Your task to perform on an android device: find which apps use the phone's location Image 0: 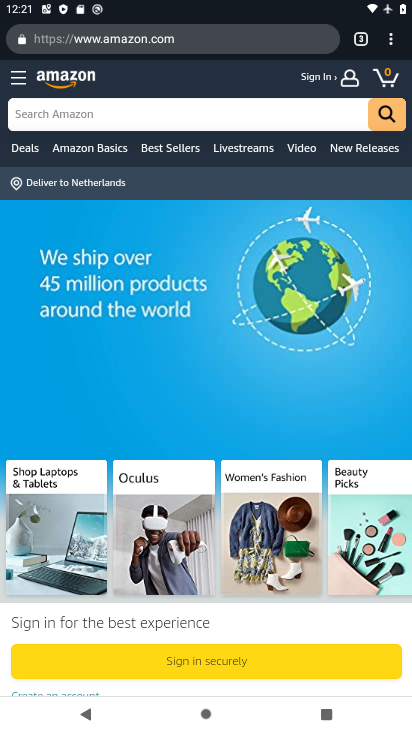
Step 0: press home button
Your task to perform on an android device: find which apps use the phone's location Image 1: 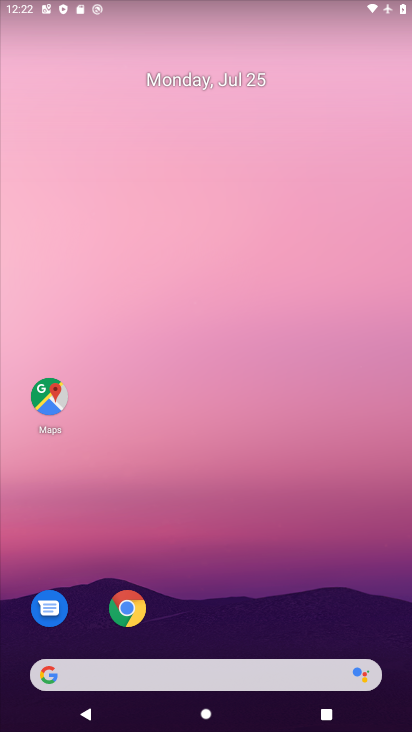
Step 1: drag from (304, 617) to (311, 263)
Your task to perform on an android device: find which apps use the phone's location Image 2: 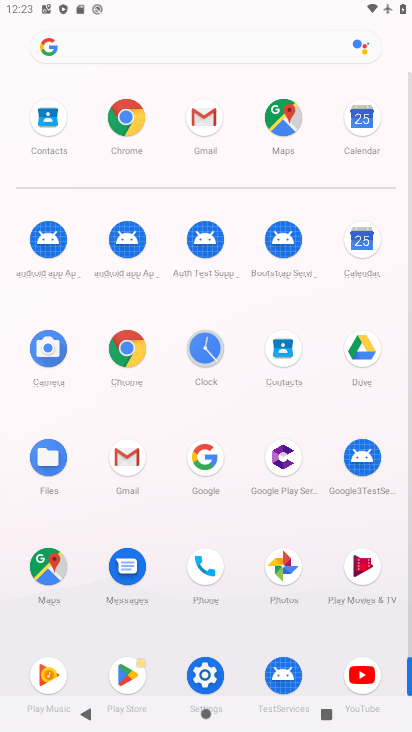
Step 2: click (210, 677)
Your task to perform on an android device: find which apps use the phone's location Image 3: 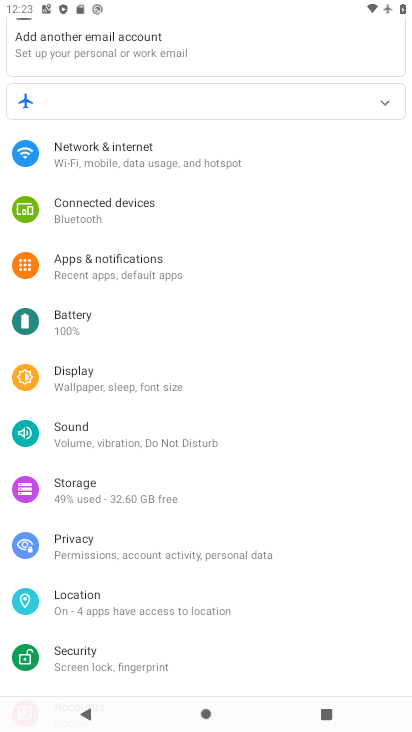
Step 3: click (86, 595)
Your task to perform on an android device: find which apps use the phone's location Image 4: 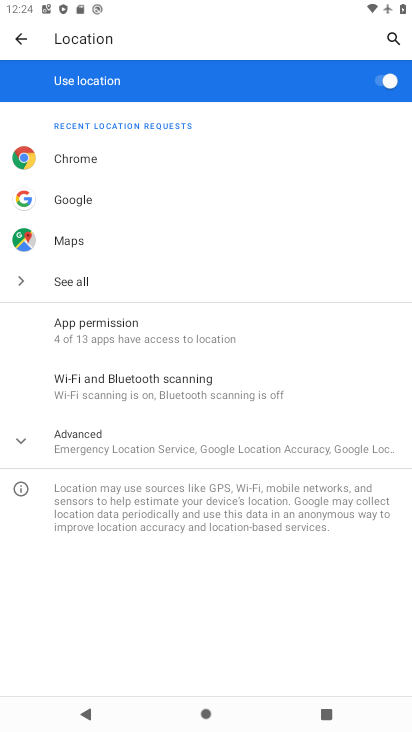
Step 4: click (161, 335)
Your task to perform on an android device: find which apps use the phone's location Image 5: 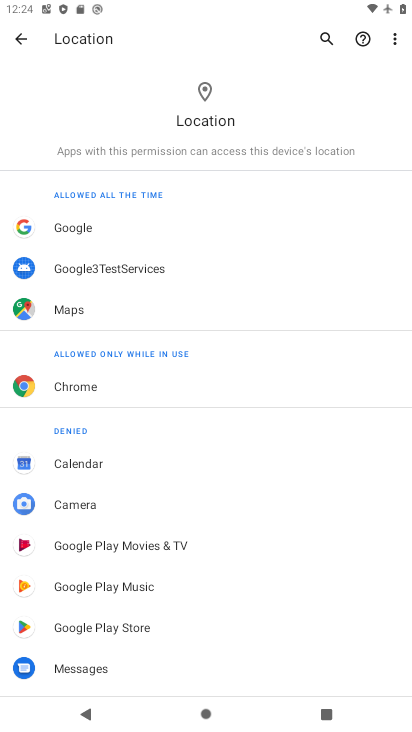
Step 5: task complete